Your task to perform on an android device: toggle show notifications on the lock screen Image 0: 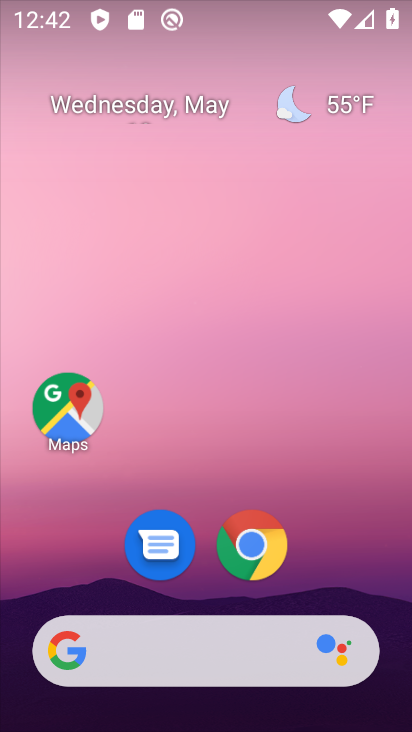
Step 0: drag from (379, 551) to (344, 40)
Your task to perform on an android device: toggle show notifications on the lock screen Image 1: 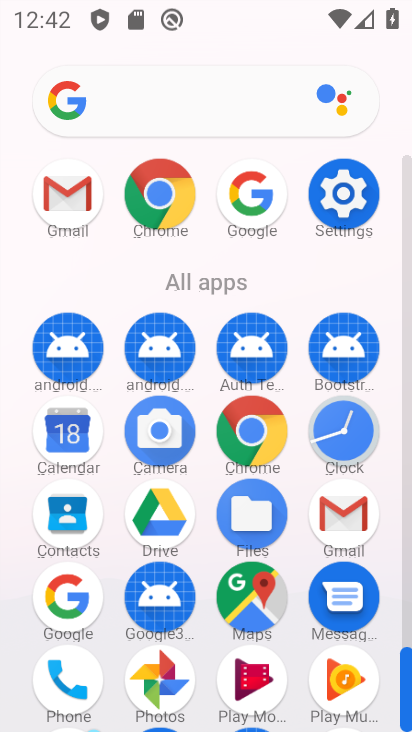
Step 1: click (346, 208)
Your task to perform on an android device: toggle show notifications on the lock screen Image 2: 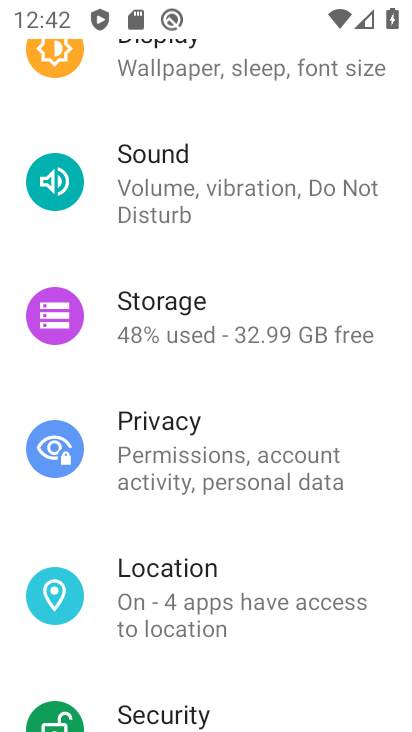
Step 2: drag from (228, 550) to (230, 681)
Your task to perform on an android device: toggle show notifications on the lock screen Image 3: 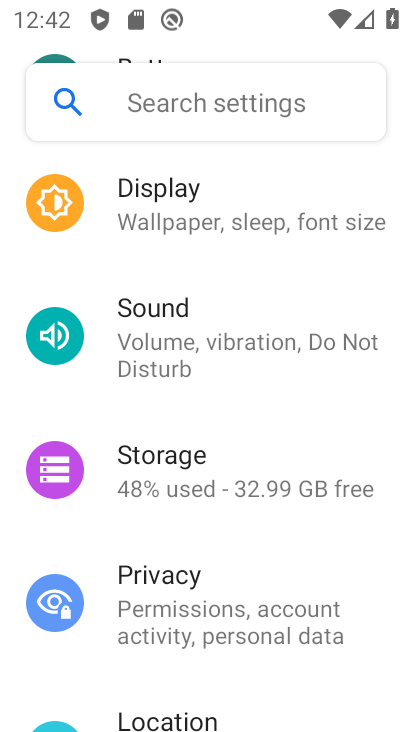
Step 3: drag from (225, 224) to (243, 552)
Your task to perform on an android device: toggle show notifications on the lock screen Image 4: 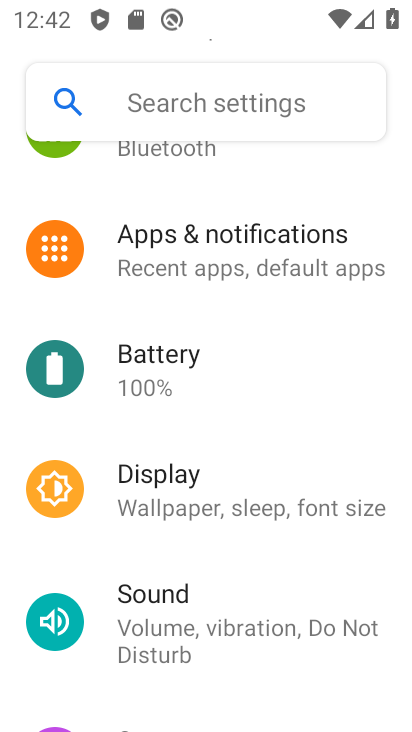
Step 4: click (210, 267)
Your task to perform on an android device: toggle show notifications on the lock screen Image 5: 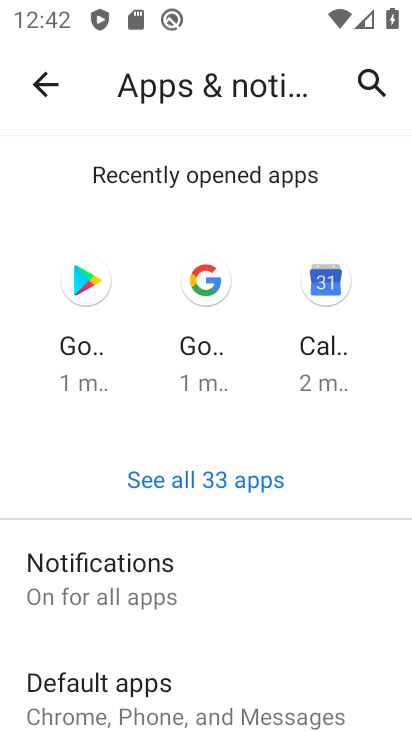
Step 5: click (184, 596)
Your task to perform on an android device: toggle show notifications on the lock screen Image 6: 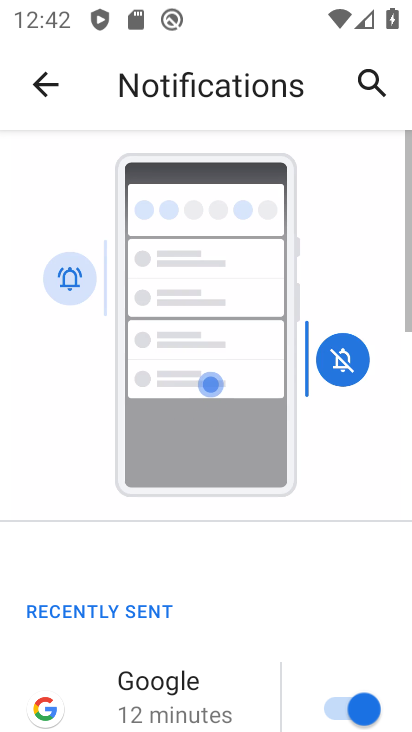
Step 6: drag from (232, 567) to (198, 8)
Your task to perform on an android device: toggle show notifications on the lock screen Image 7: 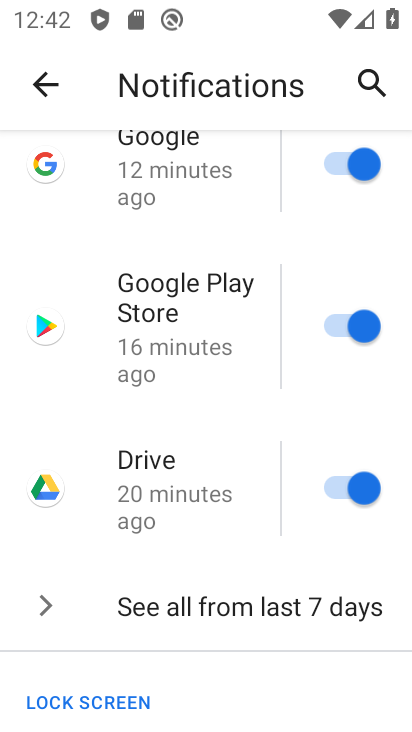
Step 7: drag from (246, 668) to (242, 185)
Your task to perform on an android device: toggle show notifications on the lock screen Image 8: 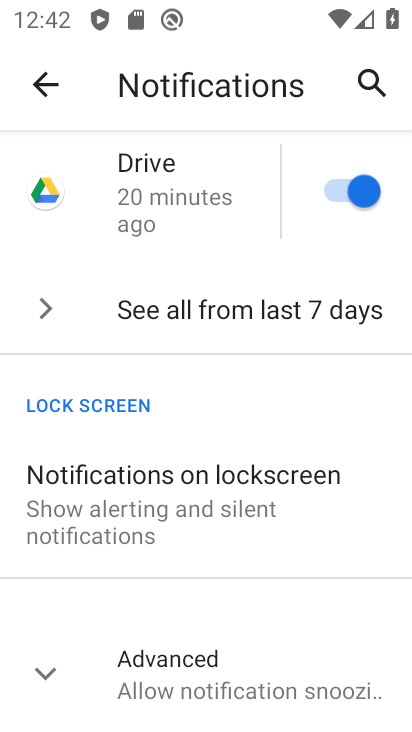
Step 8: click (208, 514)
Your task to perform on an android device: toggle show notifications on the lock screen Image 9: 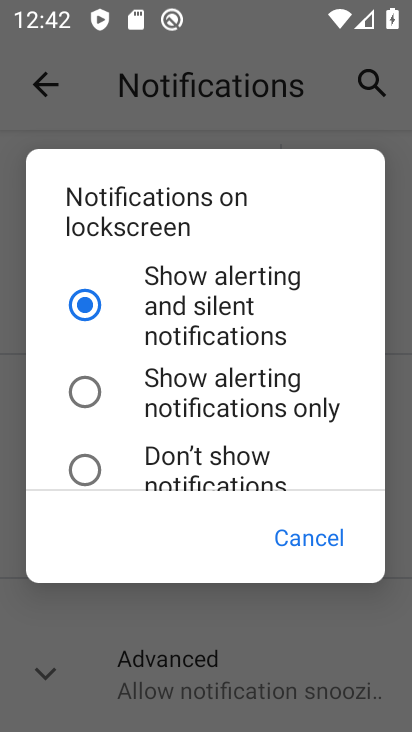
Step 9: click (185, 457)
Your task to perform on an android device: toggle show notifications on the lock screen Image 10: 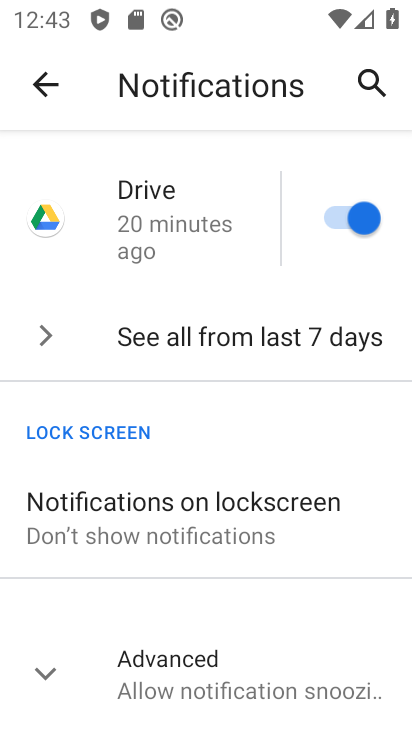
Step 10: task complete